Your task to perform on an android device: check out phone information Image 0: 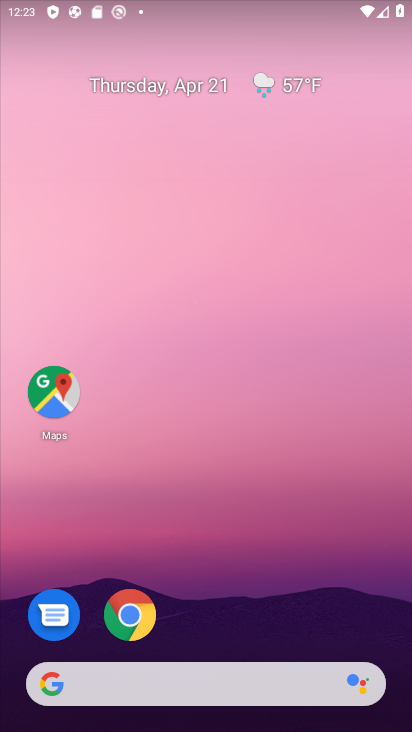
Step 0: drag from (310, 598) to (247, 161)
Your task to perform on an android device: check out phone information Image 1: 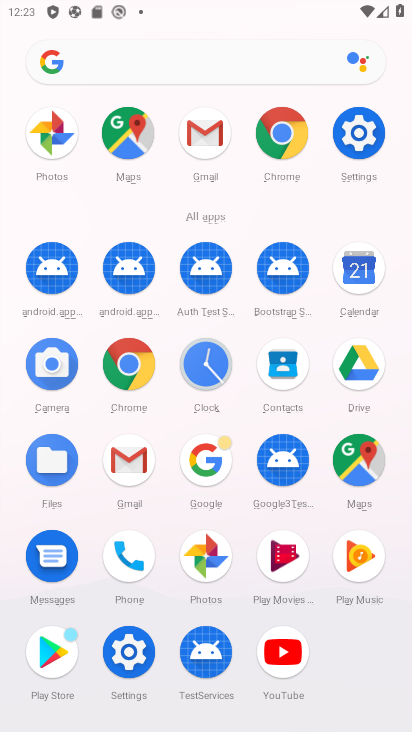
Step 1: click (139, 658)
Your task to perform on an android device: check out phone information Image 2: 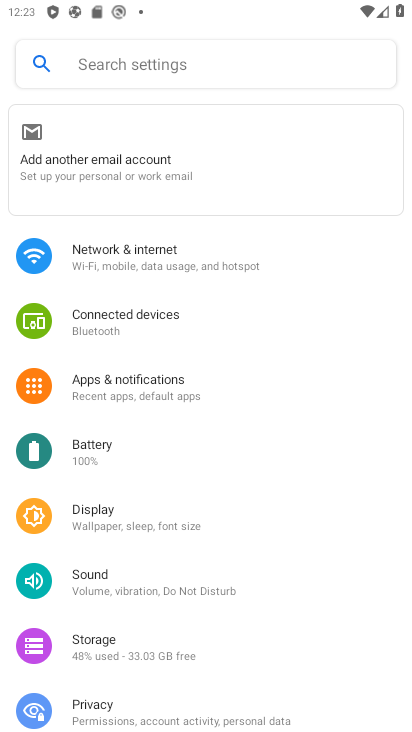
Step 2: drag from (141, 682) to (141, 125)
Your task to perform on an android device: check out phone information Image 3: 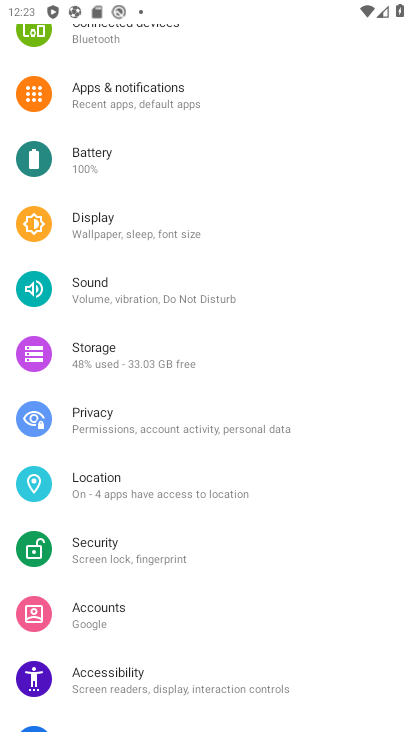
Step 3: drag from (132, 468) to (179, 155)
Your task to perform on an android device: check out phone information Image 4: 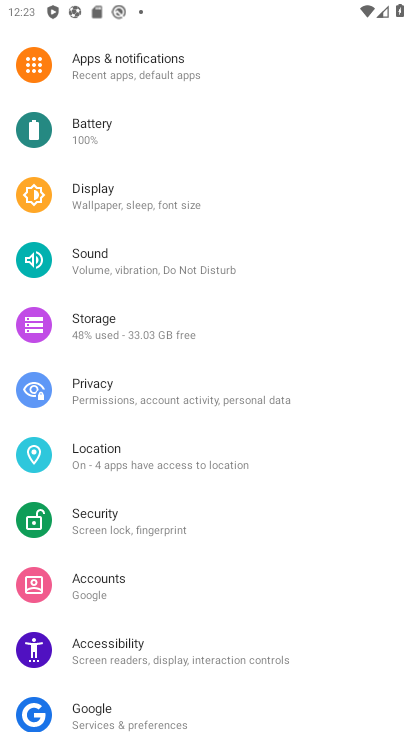
Step 4: drag from (168, 694) to (191, 191)
Your task to perform on an android device: check out phone information Image 5: 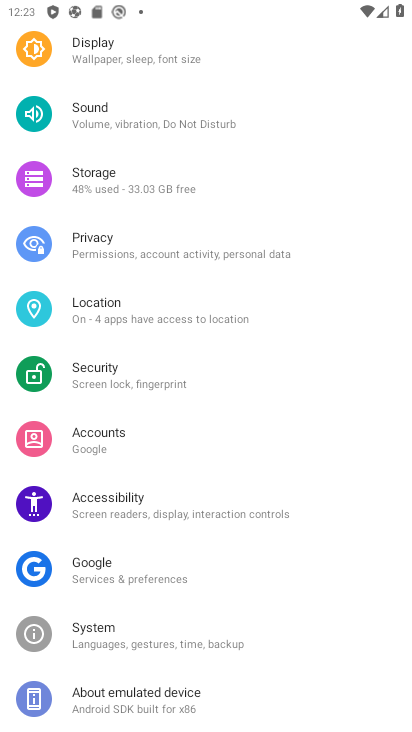
Step 5: click (115, 702)
Your task to perform on an android device: check out phone information Image 6: 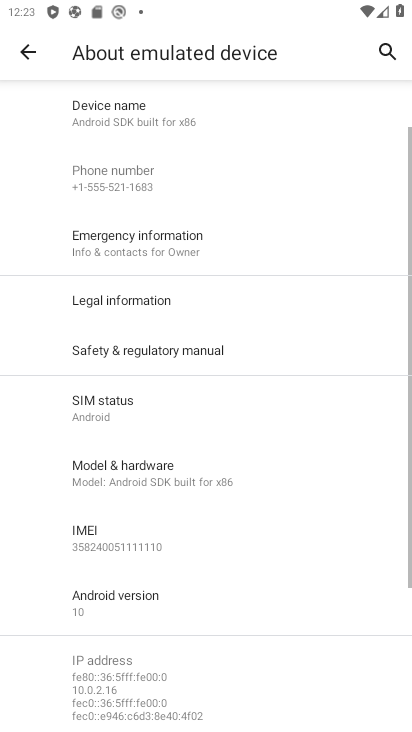
Step 6: drag from (163, 704) to (172, 312)
Your task to perform on an android device: check out phone information Image 7: 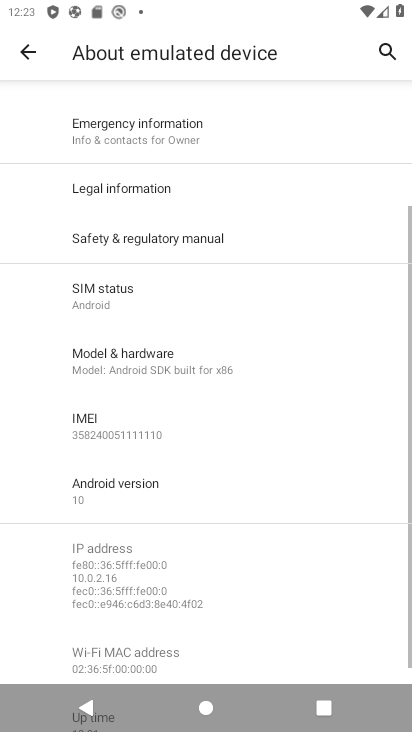
Step 7: click (270, 159)
Your task to perform on an android device: check out phone information Image 8: 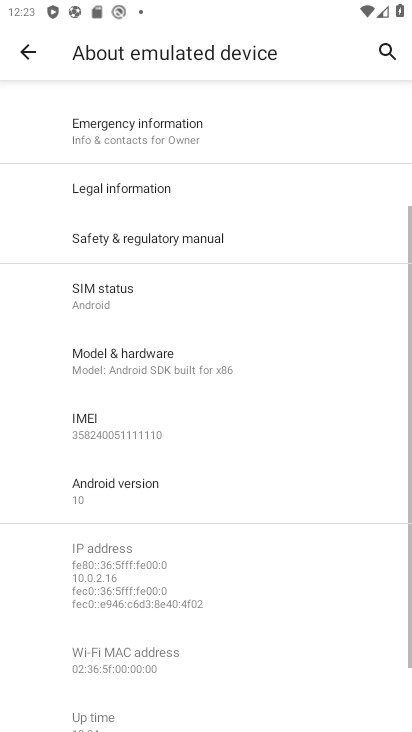
Step 8: task complete